Your task to perform on an android device: turn off wifi Image 0: 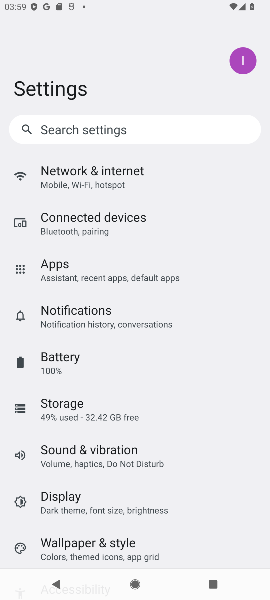
Step 0: press home button
Your task to perform on an android device: turn off wifi Image 1: 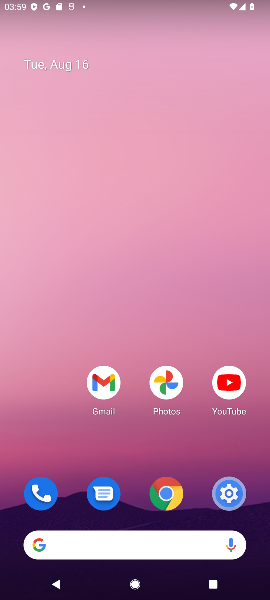
Step 1: drag from (67, 470) to (68, 106)
Your task to perform on an android device: turn off wifi Image 2: 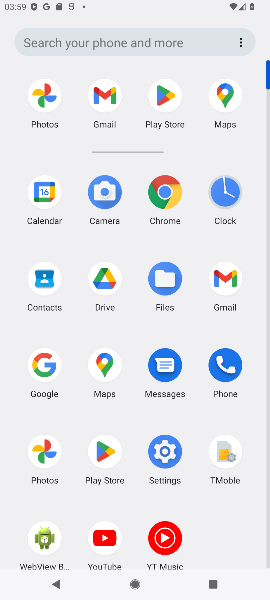
Step 2: click (166, 449)
Your task to perform on an android device: turn off wifi Image 3: 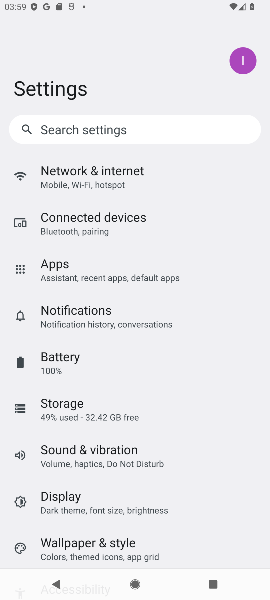
Step 3: drag from (216, 458) to (222, 345)
Your task to perform on an android device: turn off wifi Image 4: 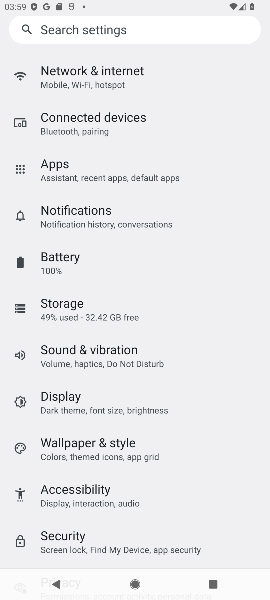
Step 4: drag from (202, 481) to (217, 367)
Your task to perform on an android device: turn off wifi Image 5: 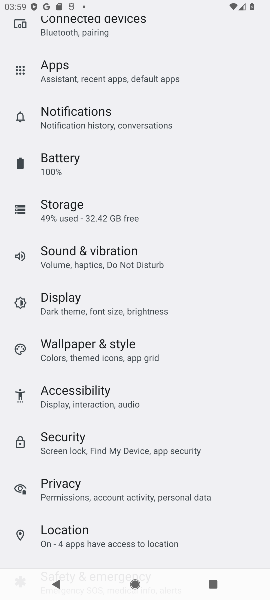
Step 5: drag from (221, 518) to (233, 363)
Your task to perform on an android device: turn off wifi Image 6: 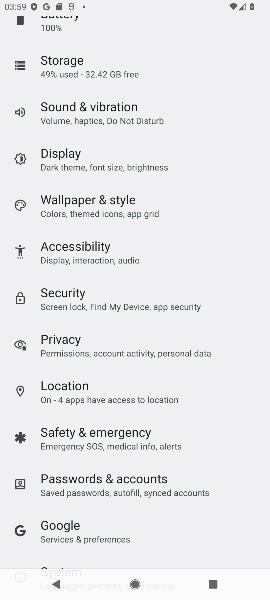
Step 6: drag from (226, 505) to (243, 369)
Your task to perform on an android device: turn off wifi Image 7: 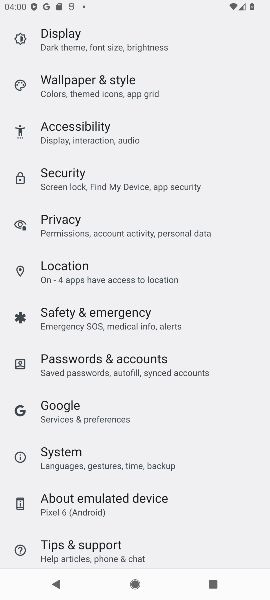
Step 7: drag from (240, 179) to (221, 369)
Your task to perform on an android device: turn off wifi Image 8: 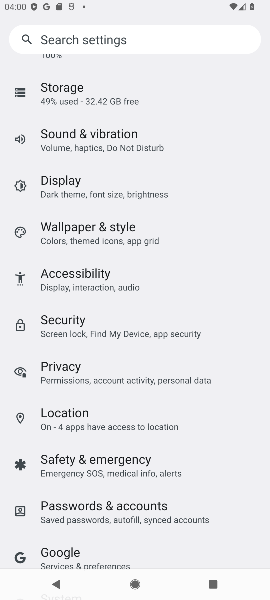
Step 8: drag from (233, 171) to (230, 318)
Your task to perform on an android device: turn off wifi Image 9: 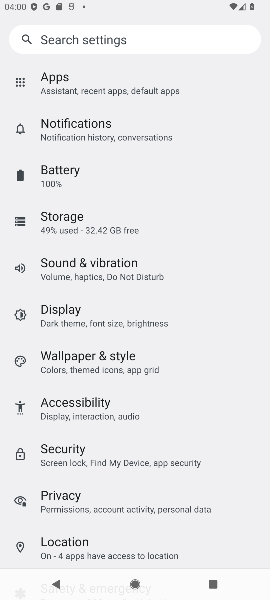
Step 9: drag from (239, 120) to (240, 278)
Your task to perform on an android device: turn off wifi Image 10: 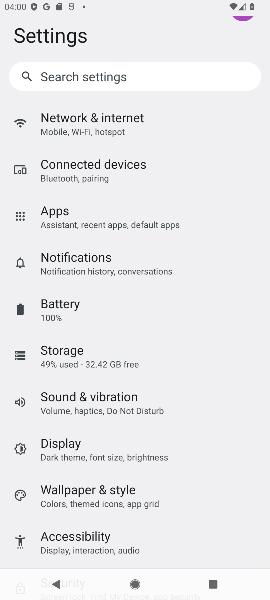
Step 10: drag from (230, 114) to (235, 256)
Your task to perform on an android device: turn off wifi Image 11: 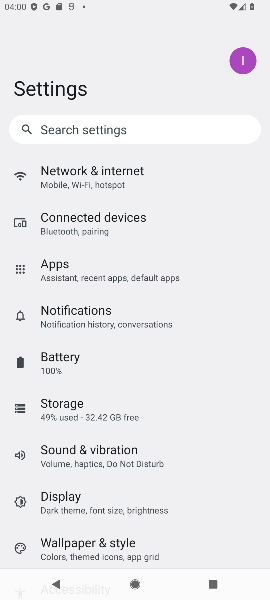
Step 11: click (125, 182)
Your task to perform on an android device: turn off wifi Image 12: 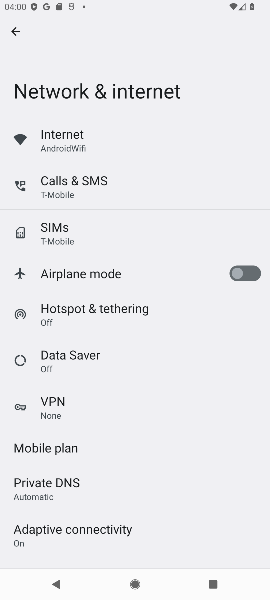
Step 12: click (83, 139)
Your task to perform on an android device: turn off wifi Image 13: 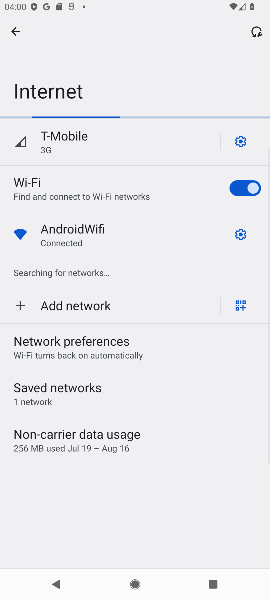
Step 13: click (255, 191)
Your task to perform on an android device: turn off wifi Image 14: 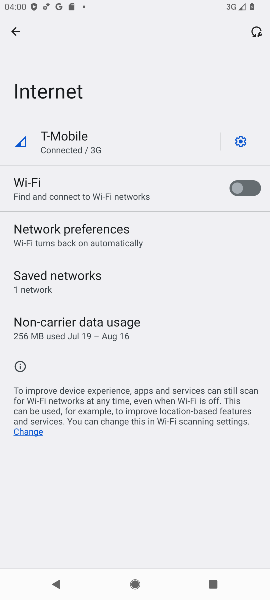
Step 14: task complete